Your task to perform on an android device: toggle wifi Image 0: 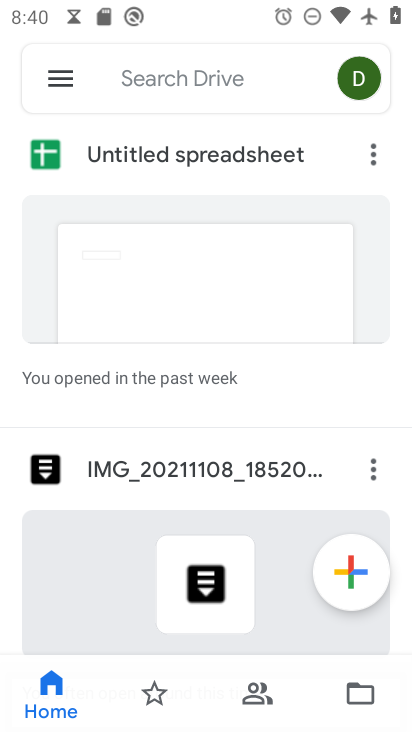
Step 0: press home button
Your task to perform on an android device: toggle wifi Image 1: 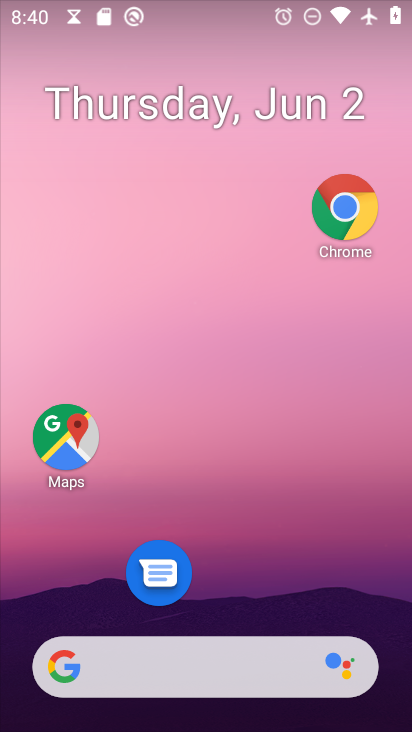
Step 1: drag from (223, 670) to (367, 87)
Your task to perform on an android device: toggle wifi Image 2: 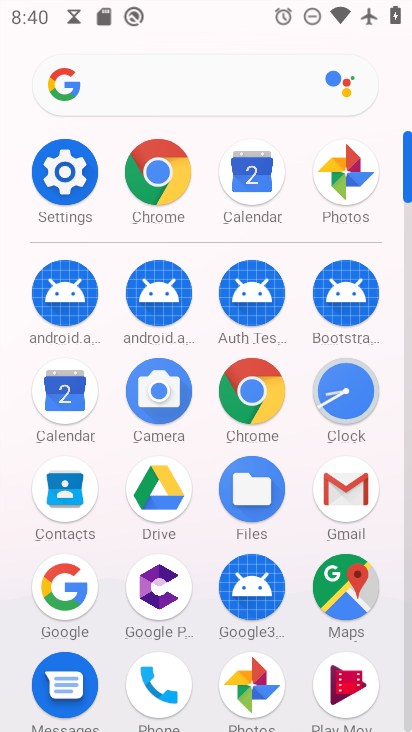
Step 2: click (58, 177)
Your task to perform on an android device: toggle wifi Image 3: 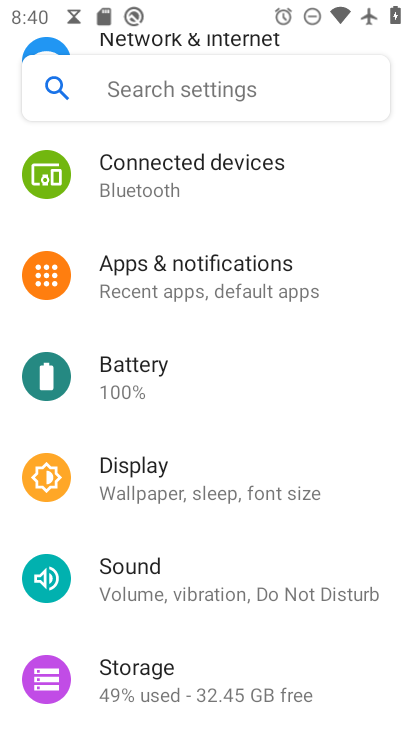
Step 3: drag from (328, 176) to (255, 572)
Your task to perform on an android device: toggle wifi Image 4: 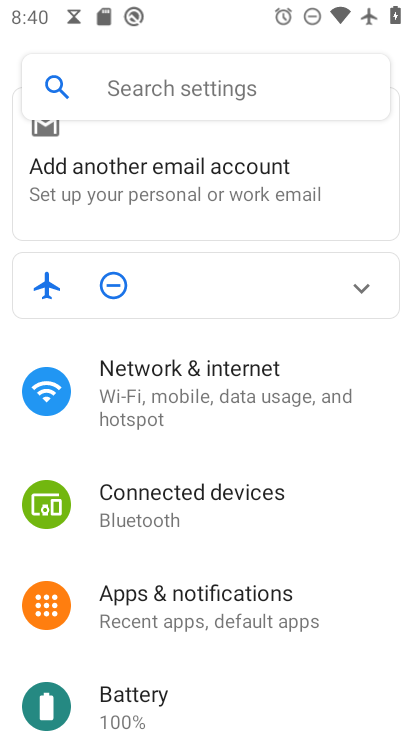
Step 4: click (219, 398)
Your task to perform on an android device: toggle wifi Image 5: 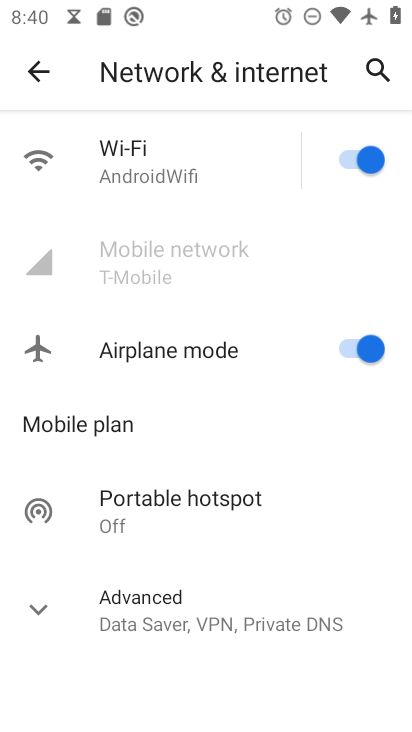
Step 5: click (354, 159)
Your task to perform on an android device: toggle wifi Image 6: 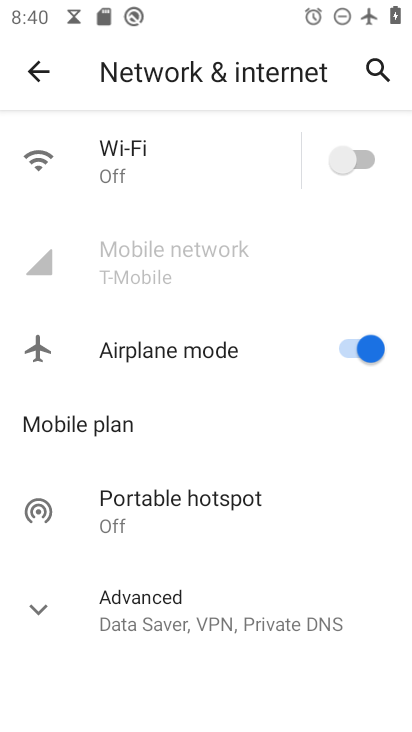
Step 6: task complete